Your task to perform on an android device: remove spam from my inbox in the gmail app Image 0: 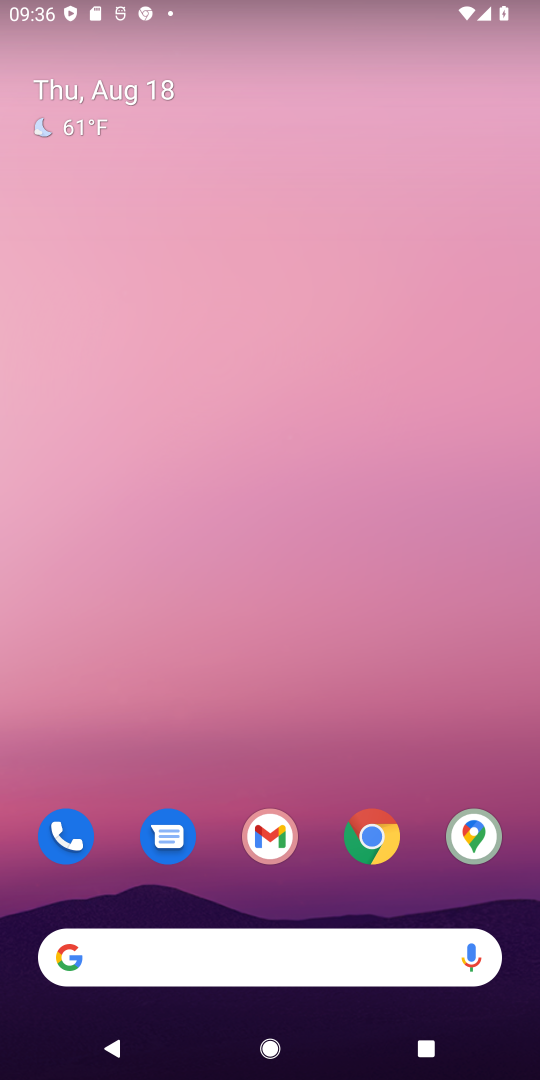
Step 0: drag from (288, 723) to (365, 85)
Your task to perform on an android device: remove spam from my inbox in the gmail app Image 1: 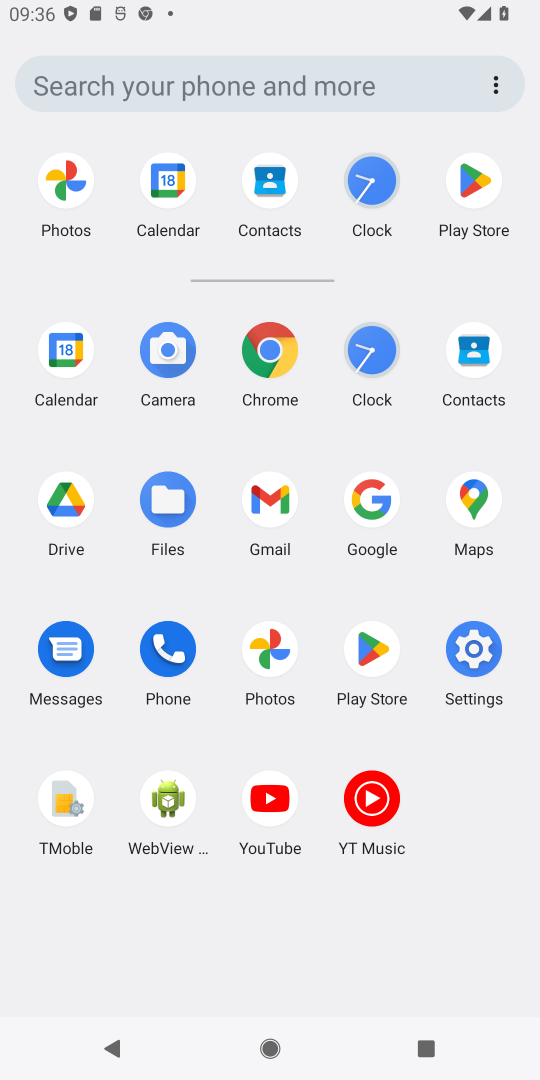
Step 1: click (276, 505)
Your task to perform on an android device: remove spam from my inbox in the gmail app Image 2: 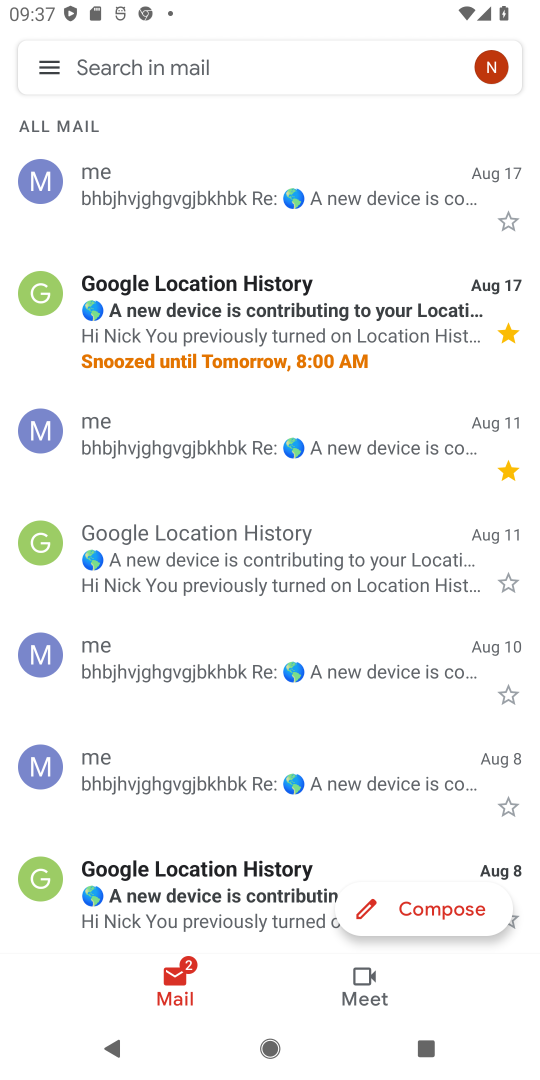
Step 2: click (44, 80)
Your task to perform on an android device: remove spam from my inbox in the gmail app Image 3: 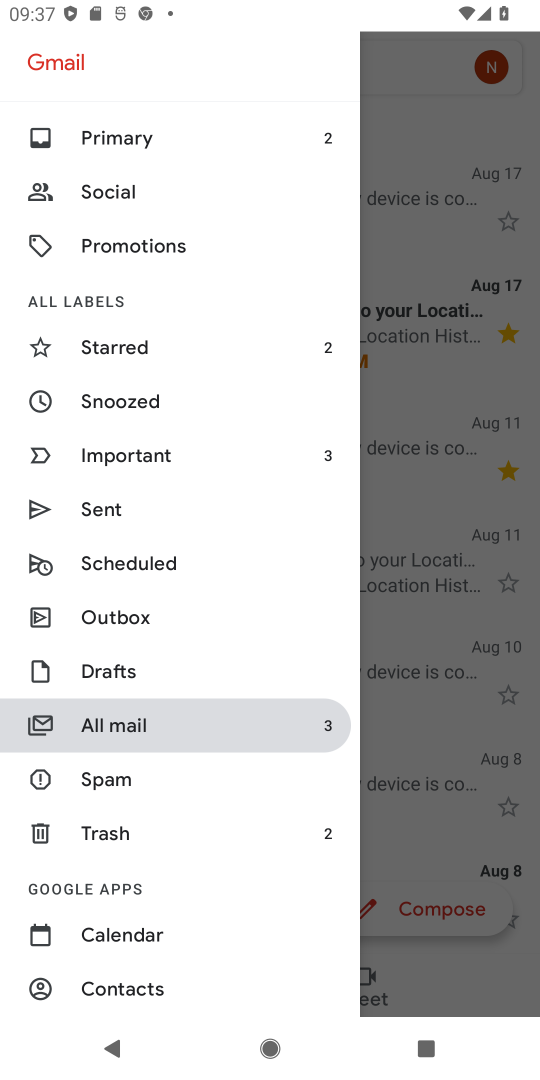
Step 3: drag from (147, 152) to (136, 730)
Your task to perform on an android device: remove spam from my inbox in the gmail app Image 4: 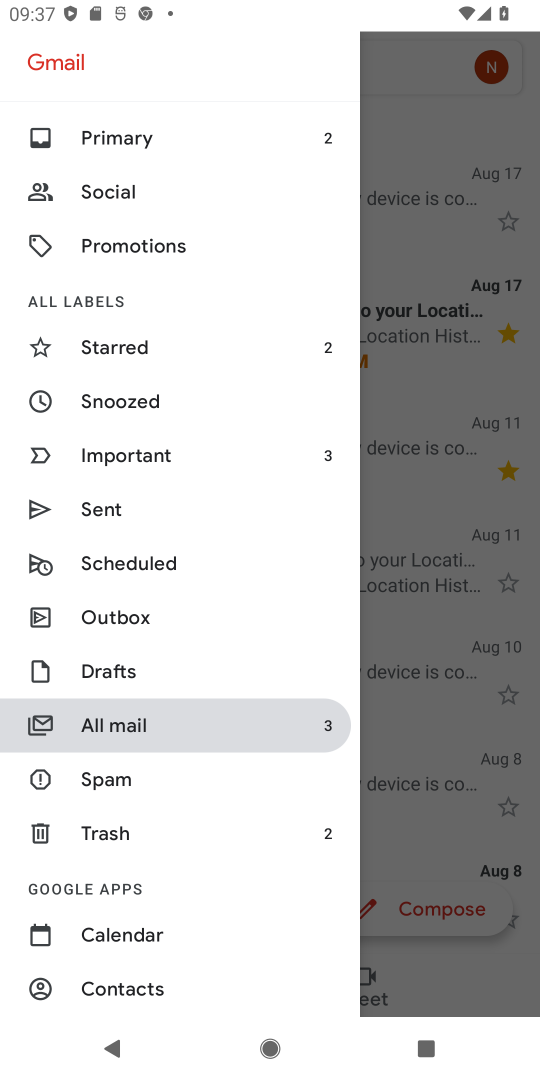
Step 4: click (151, 142)
Your task to perform on an android device: remove spam from my inbox in the gmail app Image 5: 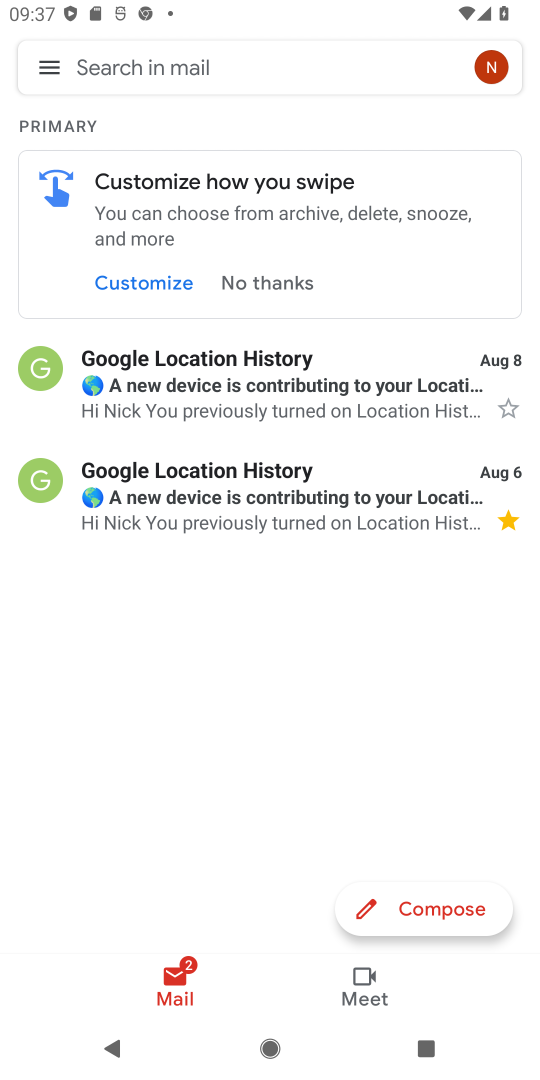
Step 5: task complete